Your task to perform on an android device: turn off notifications in google photos Image 0: 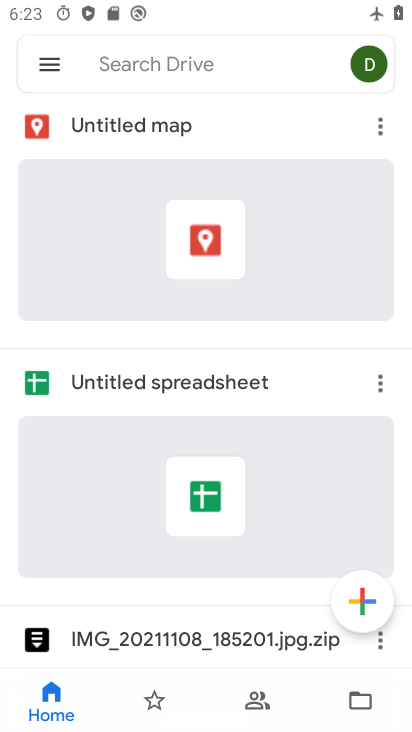
Step 0: press home button
Your task to perform on an android device: turn off notifications in google photos Image 1: 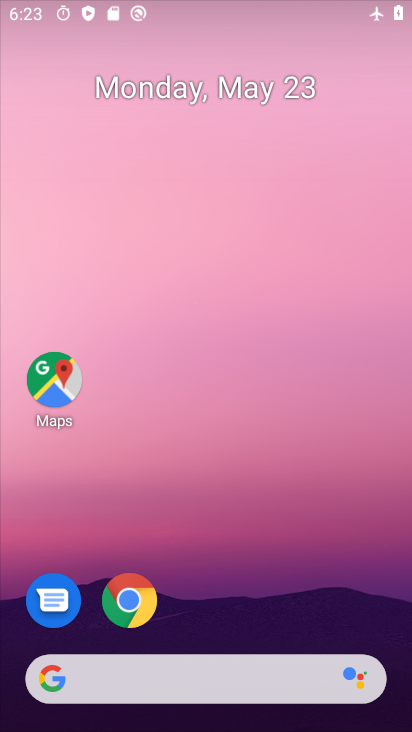
Step 1: drag from (280, 634) to (213, 216)
Your task to perform on an android device: turn off notifications in google photos Image 2: 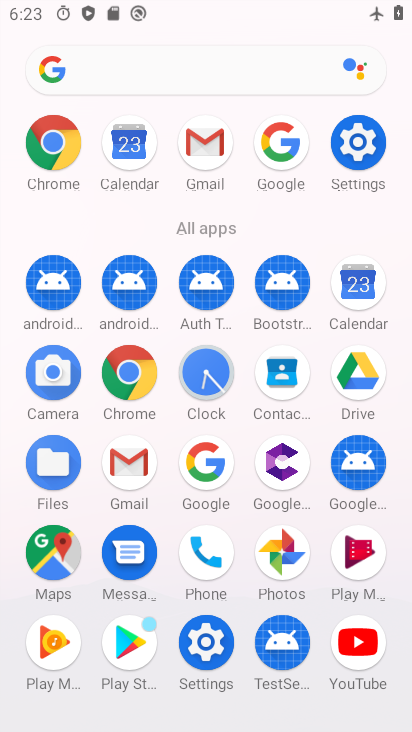
Step 2: click (301, 551)
Your task to perform on an android device: turn off notifications in google photos Image 3: 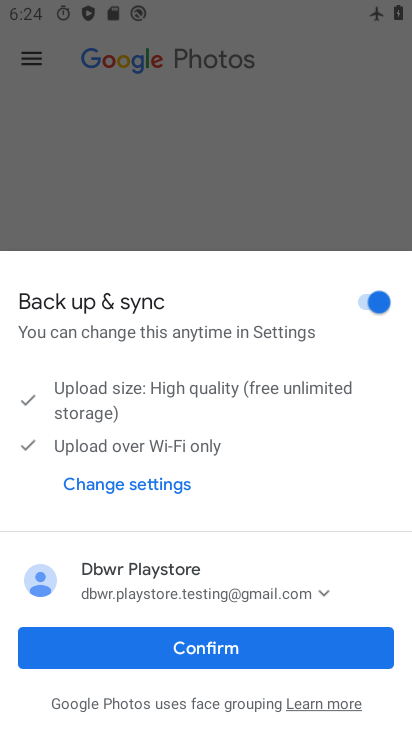
Step 3: click (280, 636)
Your task to perform on an android device: turn off notifications in google photos Image 4: 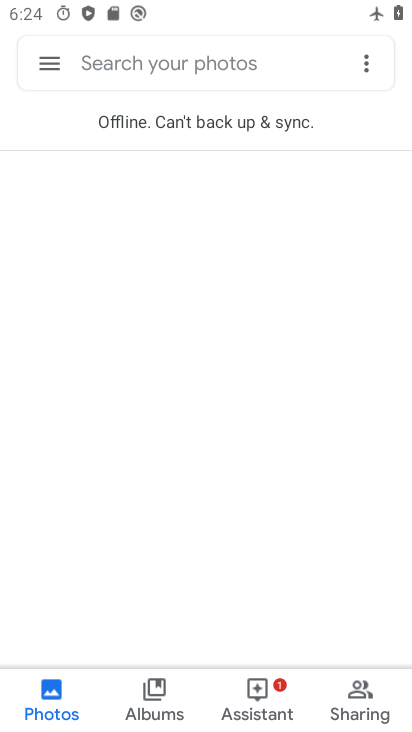
Step 4: click (50, 73)
Your task to perform on an android device: turn off notifications in google photos Image 5: 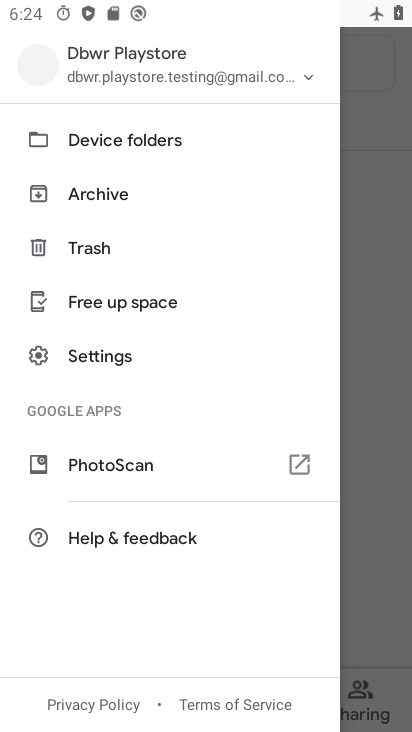
Step 5: click (122, 342)
Your task to perform on an android device: turn off notifications in google photos Image 6: 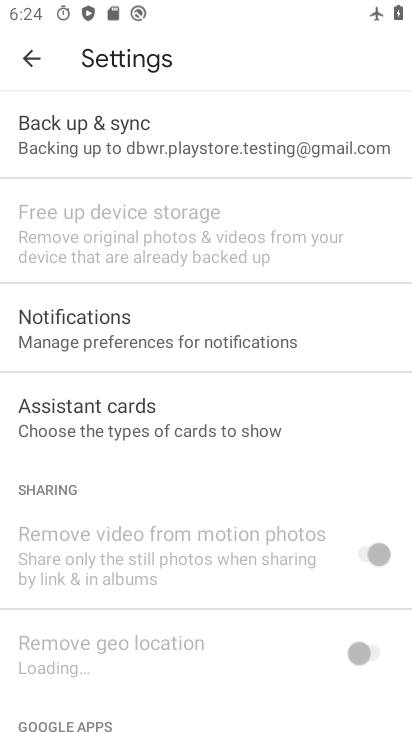
Step 6: drag from (155, 577) to (143, 435)
Your task to perform on an android device: turn off notifications in google photos Image 7: 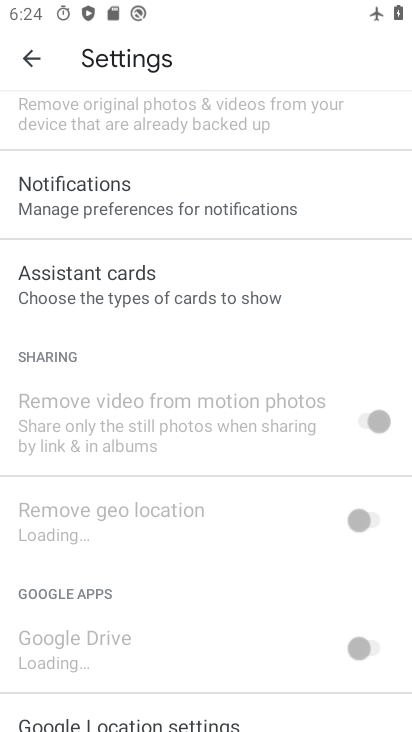
Step 7: click (191, 220)
Your task to perform on an android device: turn off notifications in google photos Image 8: 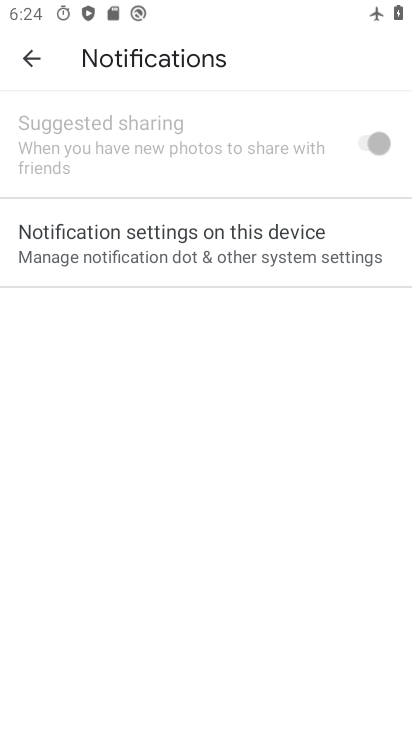
Step 8: click (272, 246)
Your task to perform on an android device: turn off notifications in google photos Image 9: 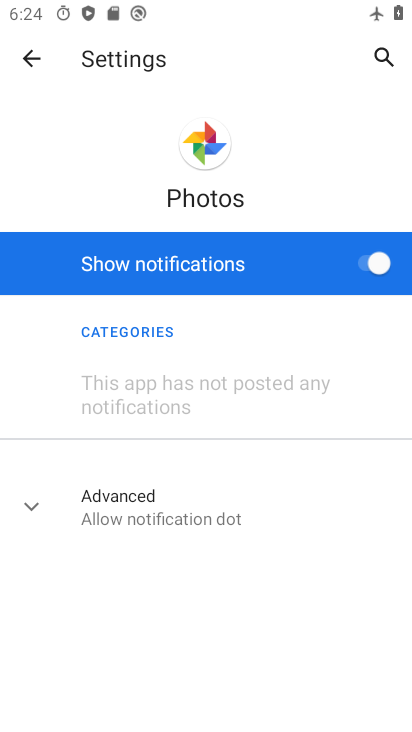
Step 9: click (372, 274)
Your task to perform on an android device: turn off notifications in google photos Image 10: 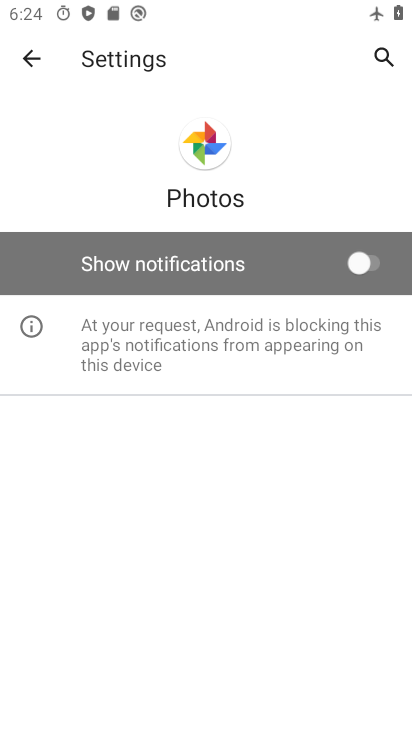
Step 10: task complete